Your task to perform on an android device: Search for seafood restaurants on Google Maps Image 0: 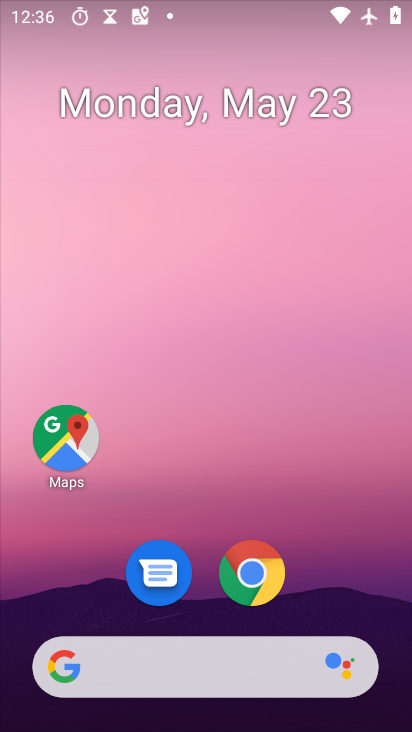
Step 0: press home button
Your task to perform on an android device: Search for seafood restaurants on Google Maps Image 1: 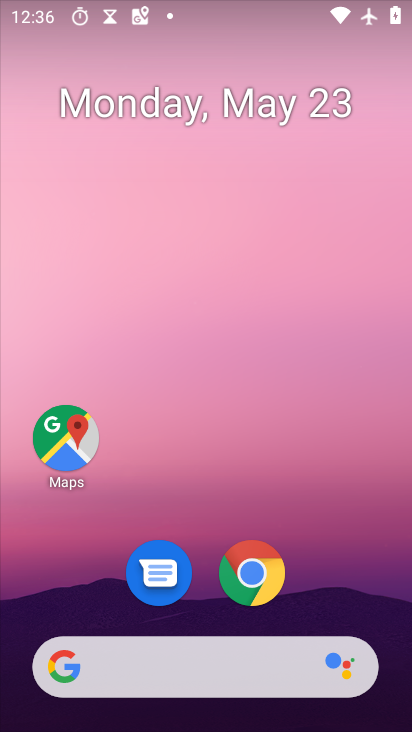
Step 1: click (72, 439)
Your task to perform on an android device: Search for seafood restaurants on Google Maps Image 2: 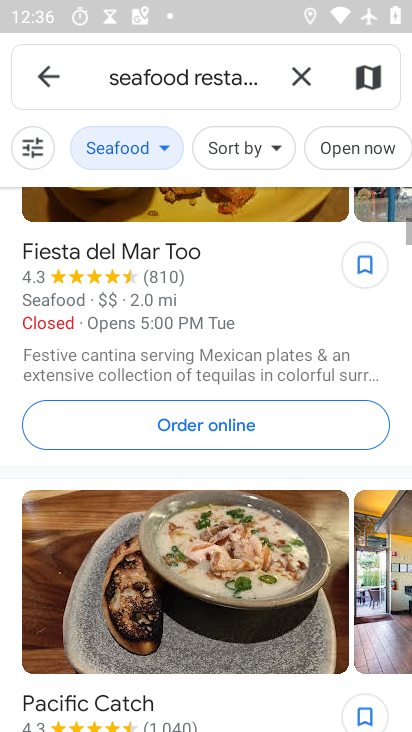
Step 2: task complete